Your task to perform on an android device: Do I have any events today? Image 0: 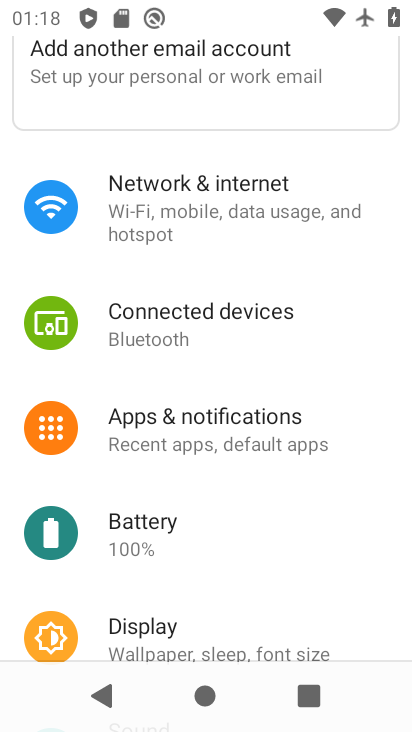
Step 0: press back button
Your task to perform on an android device: Do I have any events today? Image 1: 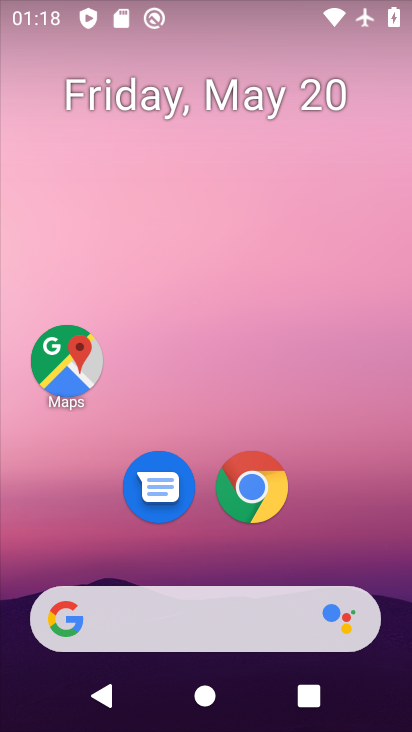
Step 1: drag from (307, 477) to (250, 22)
Your task to perform on an android device: Do I have any events today? Image 2: 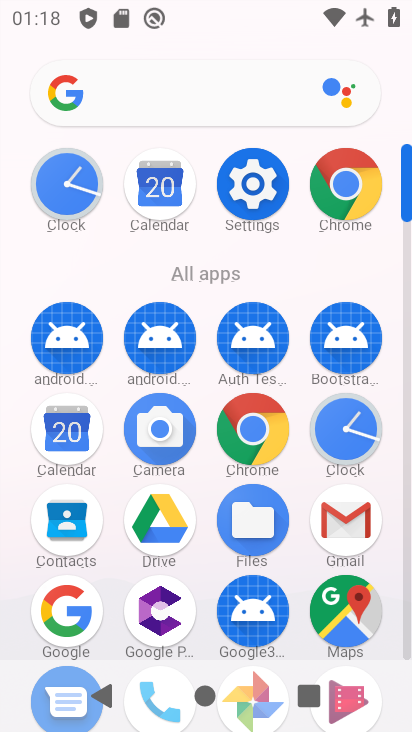
Step 2: drag from (10, 598) to (14, 218)
Your task to perform on an android device: Do I have any events today? Image 3: 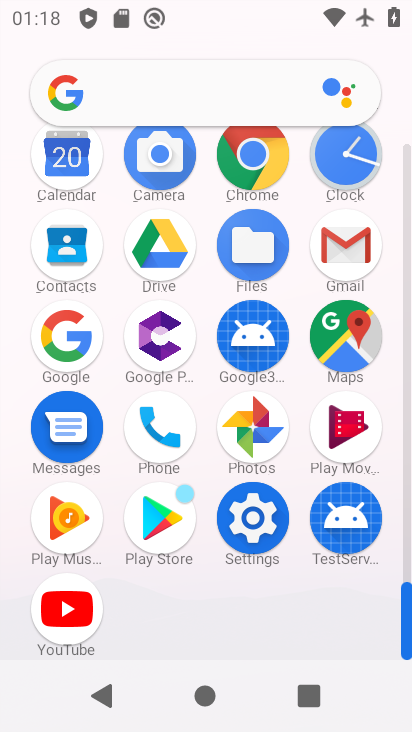
Step 3: drag from (15, 579) to (9, 252)
Your task to perform on an android device: Do I have any events today? Image 4: 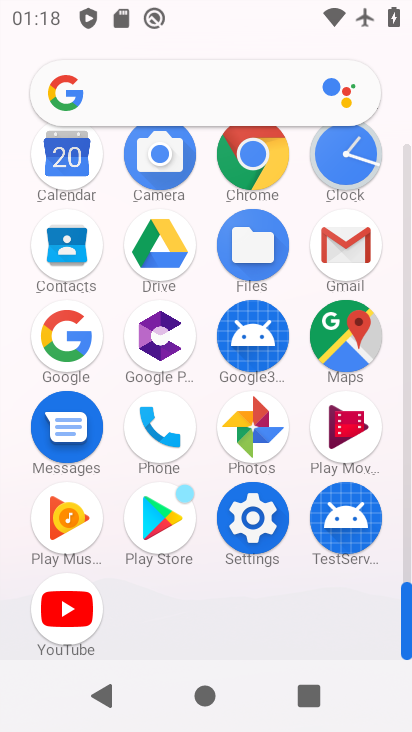
Step 4: drag from (16, 603) to (37, 303)
Your task to perform on an android device: Do I have any events today? Image 5: 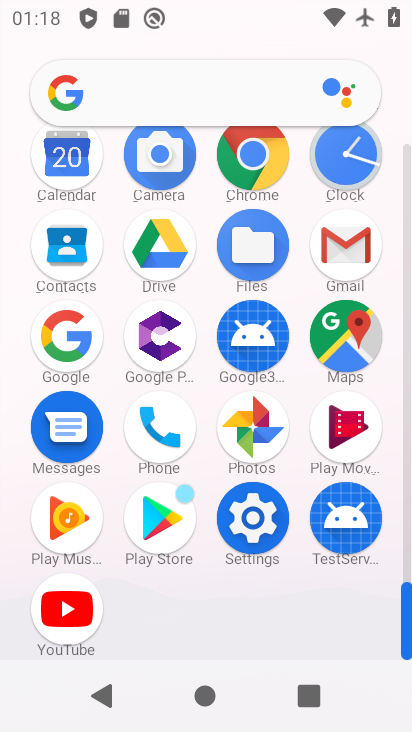
Step 5: drag from (12, 244) to (0, 494)
Your task to perform on an android device: Do I have any events today? Image 6: 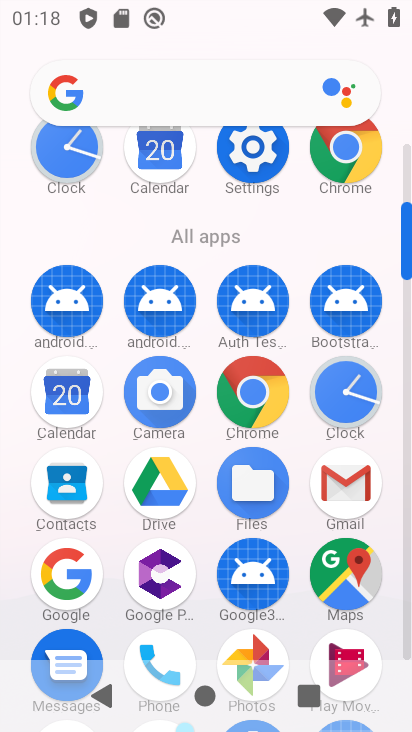
Step 6: click (160, 143)
Your task to perform on an android device: Do I have any events today? Image 7: 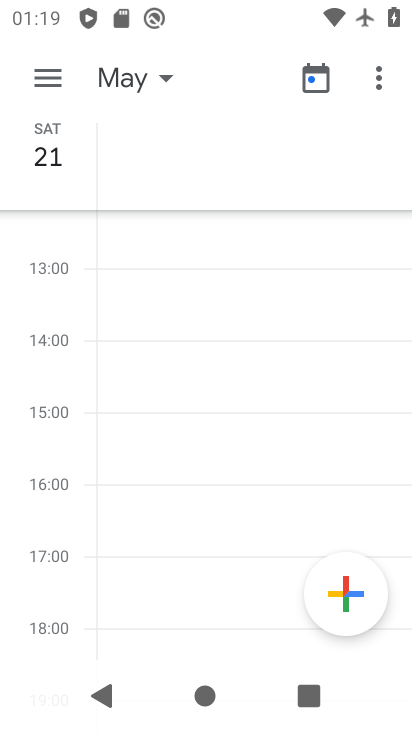
Step 7: click (312, 77)
Your task to perform on an android device: Do I have any events today? Image 8: 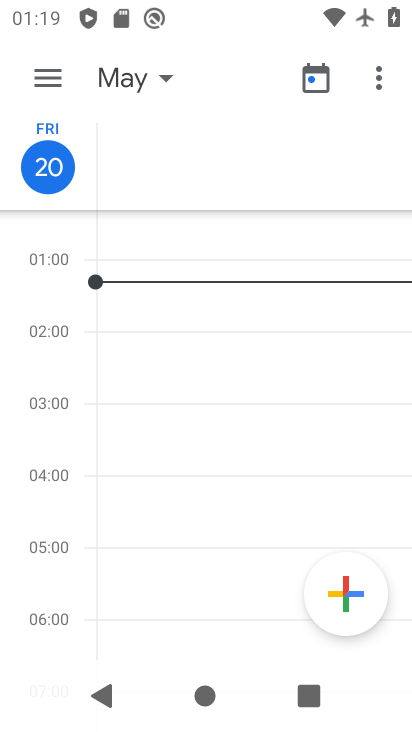
Step 8: task complete